Your task to perform on an android device: Open calendar and show me the second week of next month Image 0: 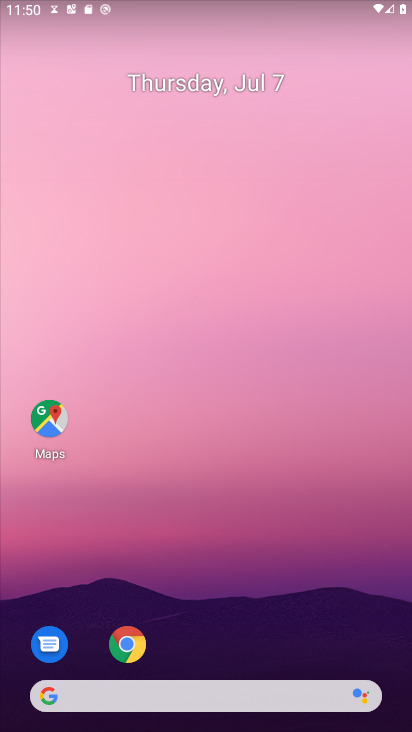
Step 0: press home button
Your task to perform on an android device: Open calendar and show me the second week of next month Image 1: 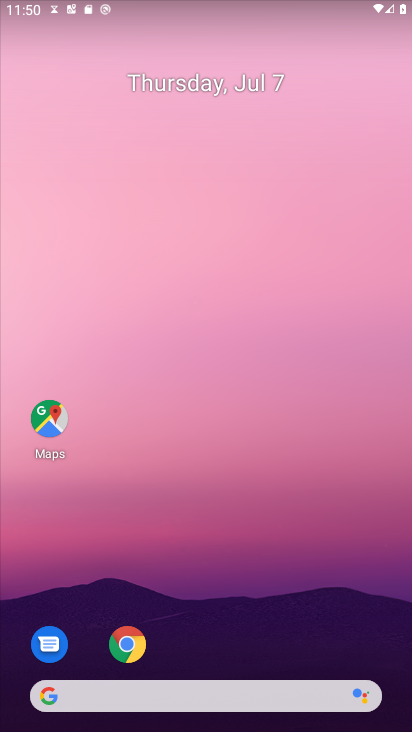
Step 1: drag from (317, 558) to (309, 67)
Your task to perform on an android device: Open calendar and show me the second week of next month Image 2: 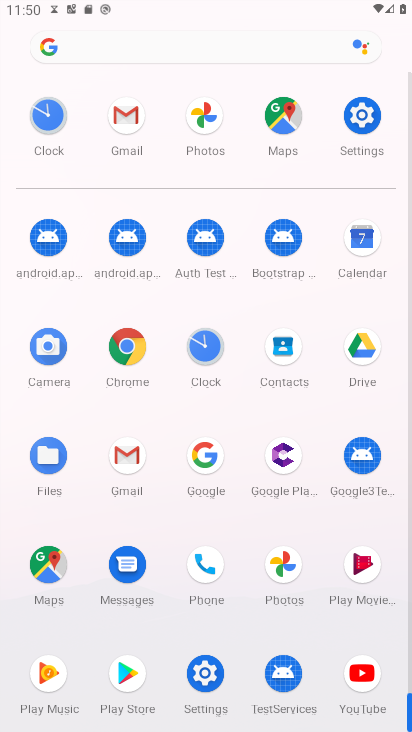
Step 2: click (367, 240)
Your task to perform on an android device: Open calendar and show me the second week of next month Image 3: 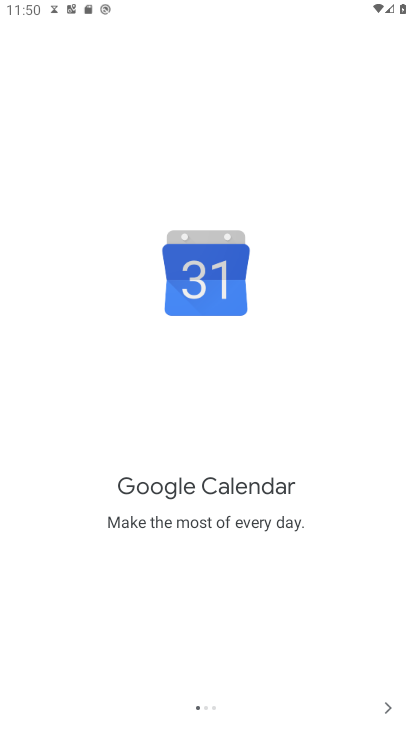
Step 3: click (386, 707)
Your task to perform on an android device: Open calendar and show me the second week of next month Image 4: 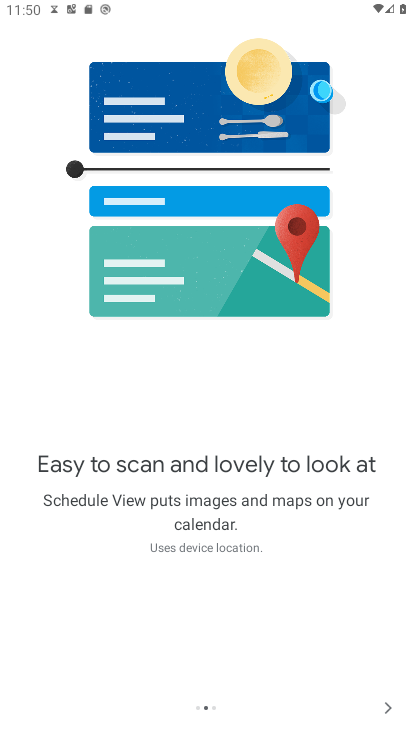
Step 4: click (386, 707)
Your task to perform on an android device: Open calendar and show me the second week of next month Image 5: 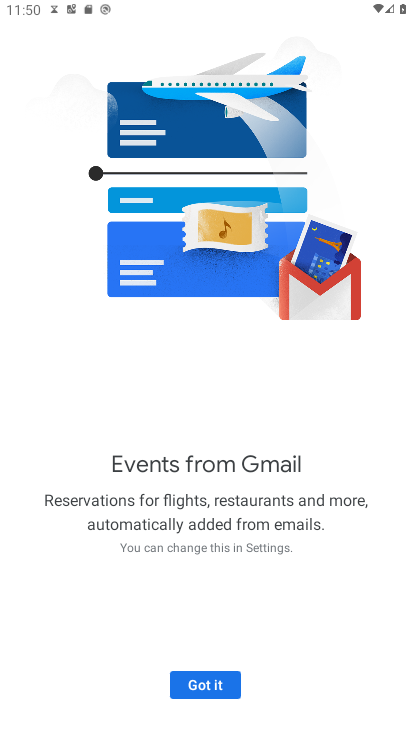
Step 5: click (216, 684)
Your task to perform on an android device: Open calendar and show me the second week of next month Image 6: 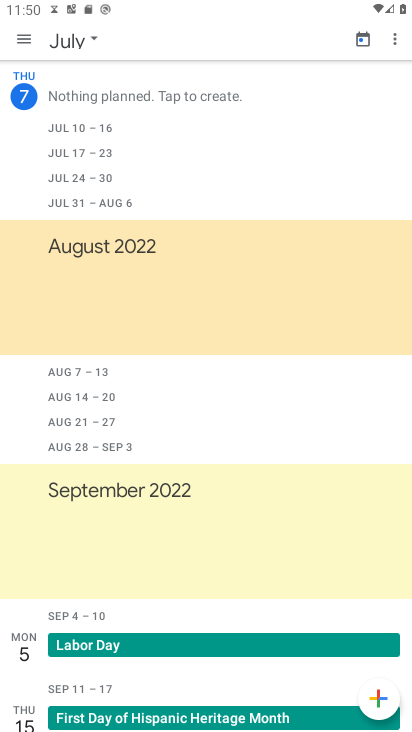
Step 6: click (24, 41)
Your task to perform on an android device: Open calendar and show me the second week of next month Image 7: 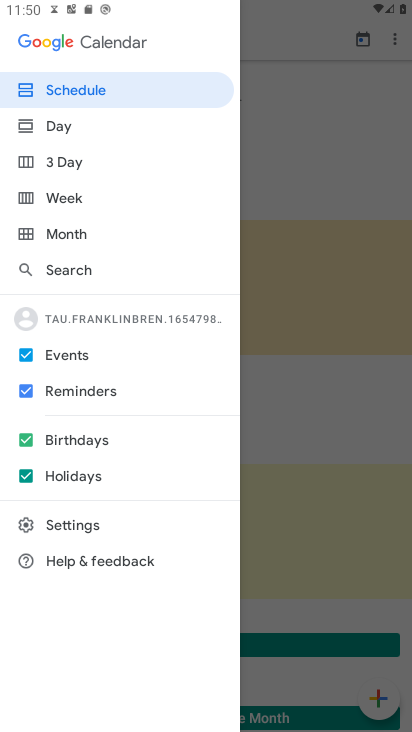
Step 7: click (62, 195)
Your task to perform on an android device: Open calendar and show me the second week of next month Image 8: 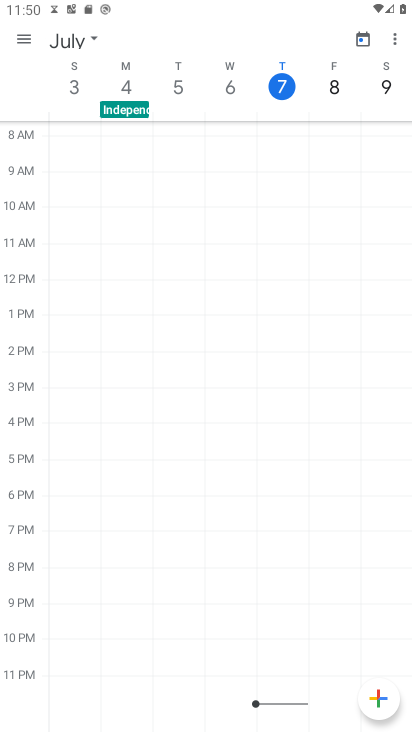
Step 8: click (89, 31)
Your task to perform on an android device: Open calendar and show me the second week of next month Image 9: 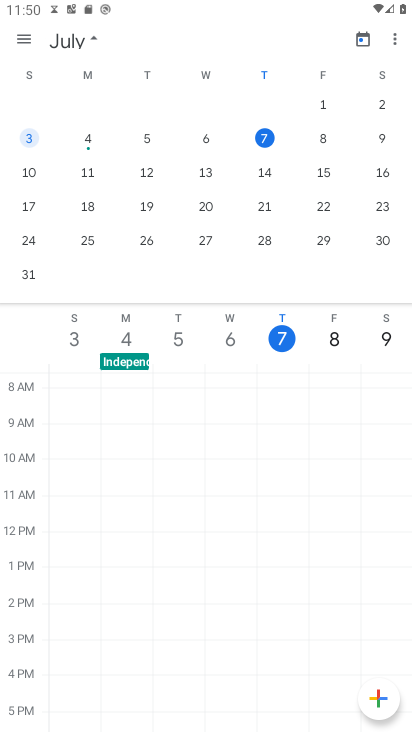
Step 9: drag from (362, 213) to (6, 150)
Your task to perform on an android device: Open calendar and show me the second week of next month Image 10: 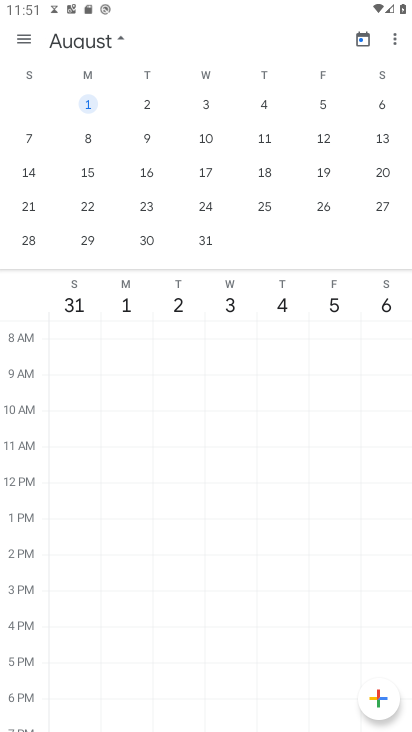
Step 10: drag from (393, 139) to (224, 145)
Your task to perform on an android device: Open calendar and show me the second week of next month Image 11: 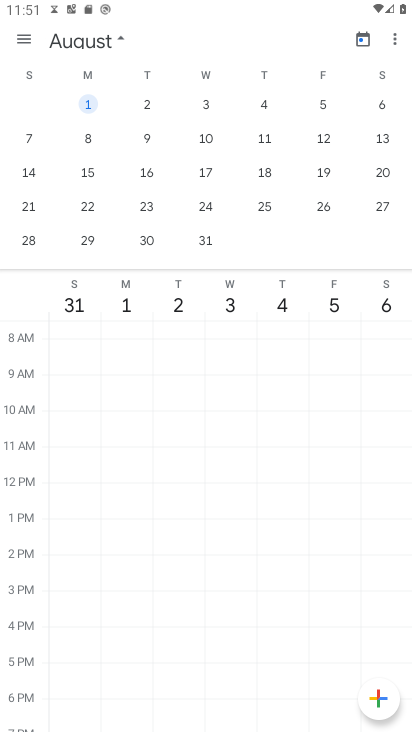
Step 11: click (33, 141)
Your task to perform on an android device: Open calendar and show me the second week of next month Image 12: 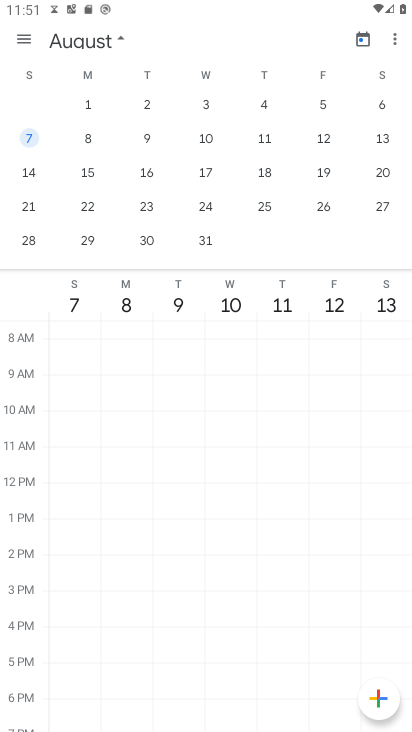
Step 12: click (171, 489)
Your task to perform on an android device: Open calendar and show me the second week of next month Image 13: 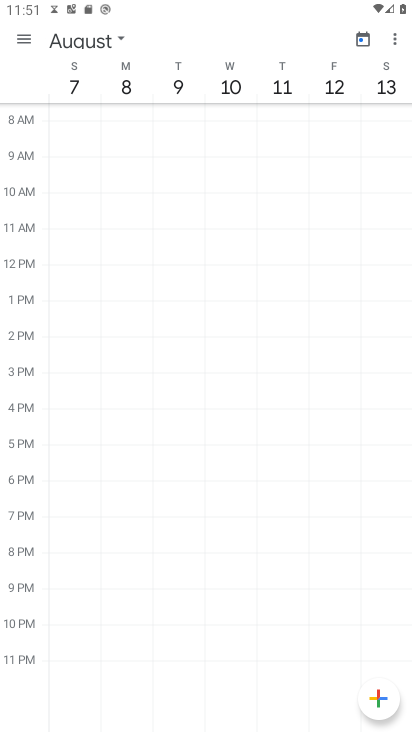
Step 13: task complete